Your task to perform on an android device: Open calendar and show me the fourth week of next month Image 0: 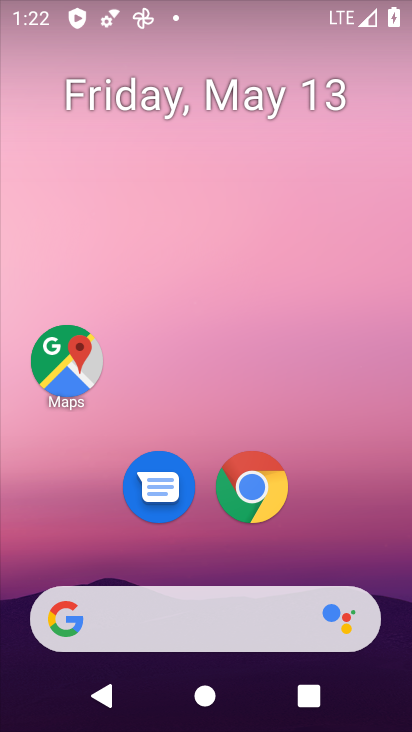
Step 0: drag from (382, 533) to (374, 100)
Your task to perform on an android device: Open calendar and show me the fourth week of next month Image 1: 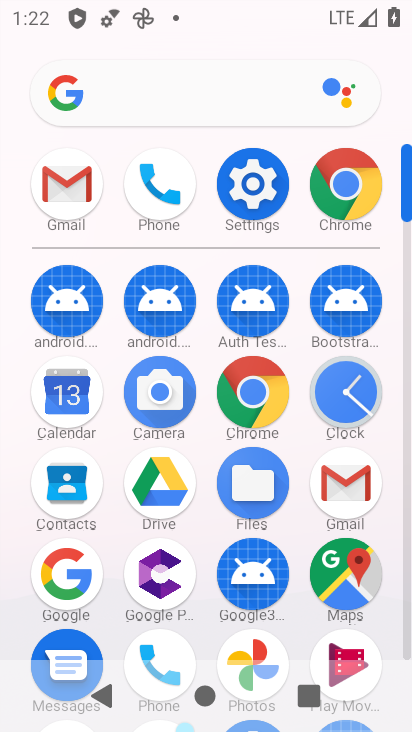
Step 1: click (72, 400)
Your task to perform on an android device: Open calendar and show me the fourth week of next month Image 2: 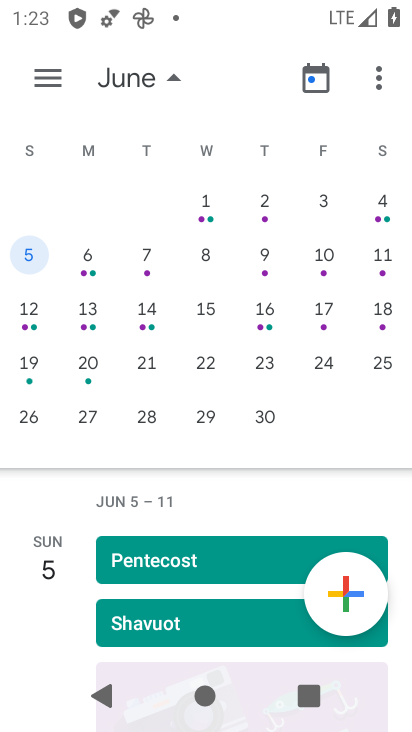
Step 2: click (34, 361)
Your task to perform on an android device: Open calendar and show me the fourth week of next month Image 3: 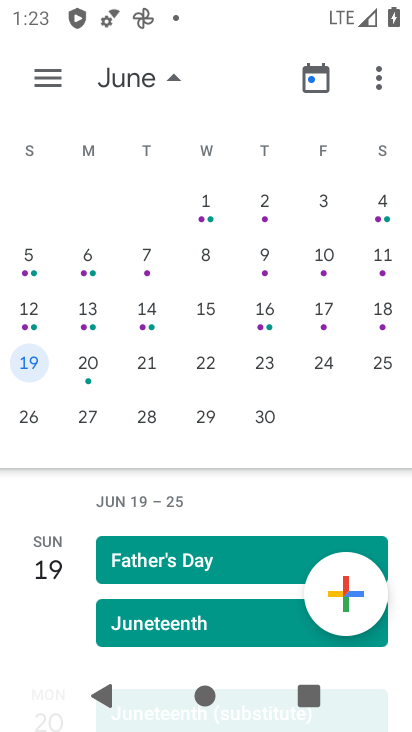
Step 3: task complete